Your task to perform on an android device: Open sound settings Image 0: 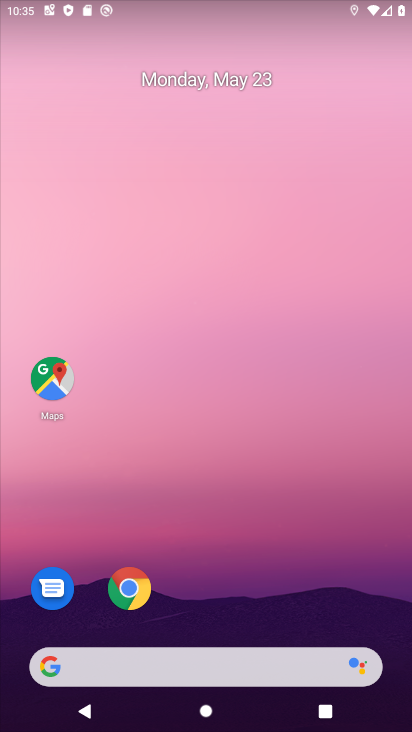
Step 0: drag from (318, 541) to (196, 74)
Your task to perform on an android device: Open sound settings Image 1: 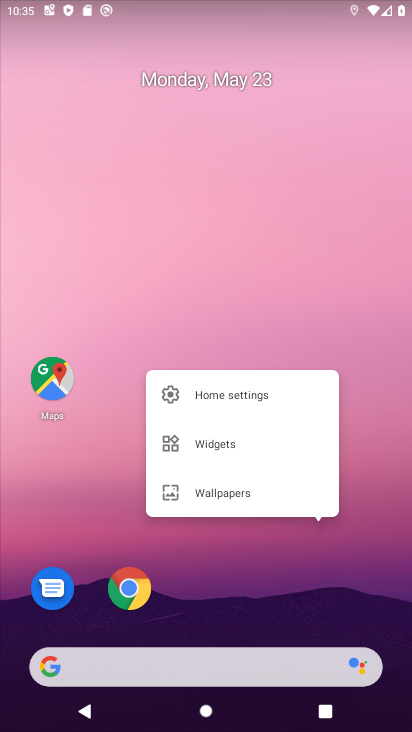
Step 1: click (243, 587)
Your task to perform on an android device: Open sound settings Image 2: 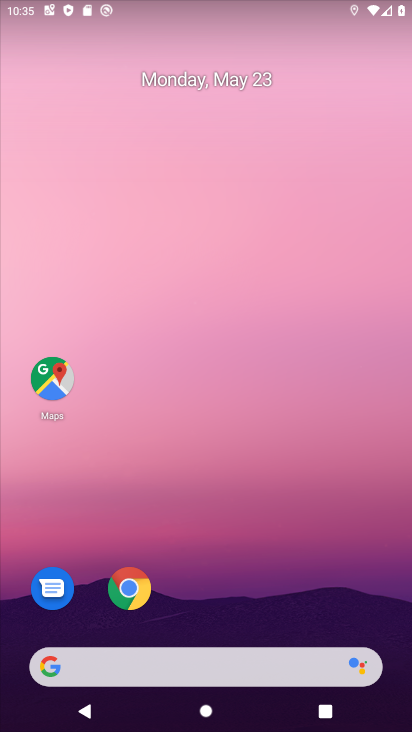
Step 2: drag from (238, 480) to (245, 88)
Your task to perform on an android device: Open sound settings Image 3: 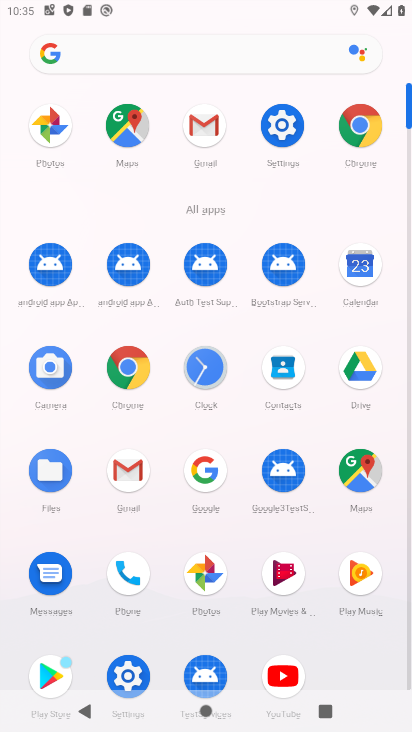
Step 3: click (283, 150)
Your task to perform on an android device: Open sound settings Image 4: 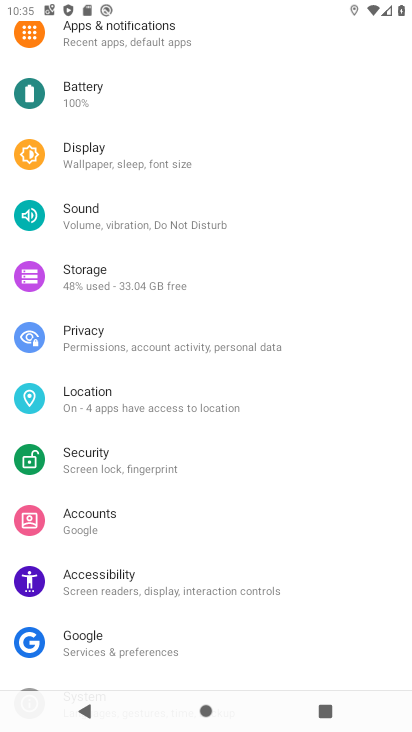
Step 4: click (112, 227)
Your task to perform on an android device: Open sound settings Image 5: 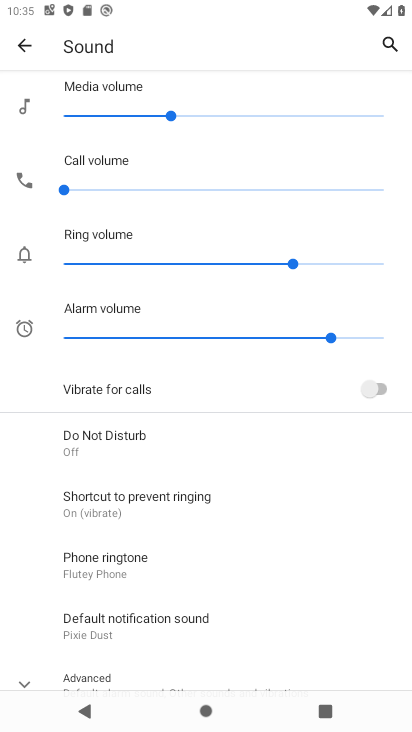
Step 5: task complete